Your task to perform on an android device: Open calendar and show me the second week of next month Image 0: 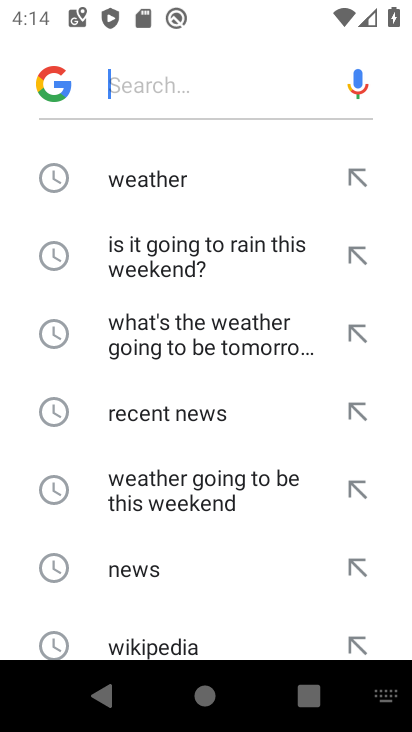
Step 0: drag from (211, 494) to (278, 236)
Your task to perform on an android device: Open calendar and show me the second week of next month Image 1: 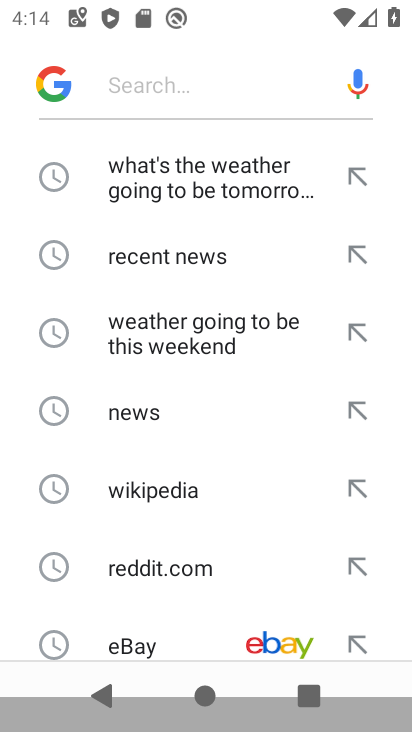
Step 1: drag from (285, 200) to (313, 632)
Your task to perform on an android device: Open calendar and show me the second week of next month Image 2: 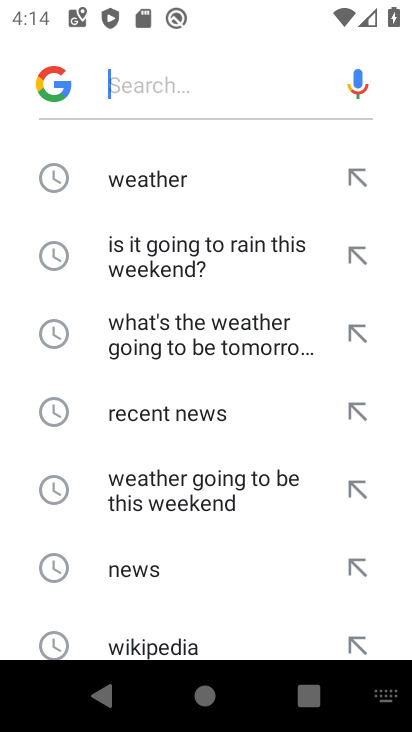
Step 2: press home button
Your task to perform on an android device: Open calendar and show me the second week of next month Image 3: 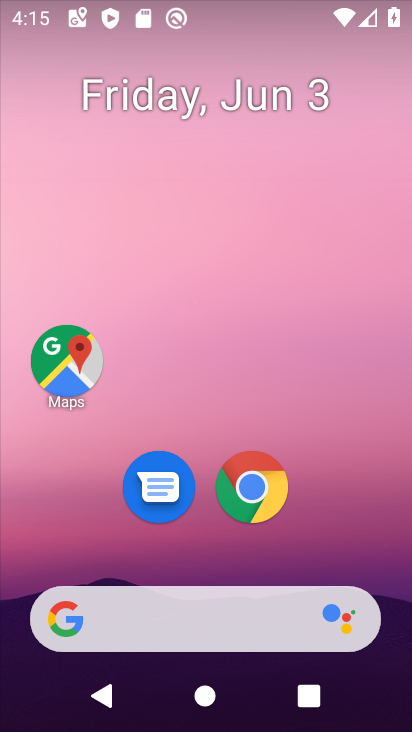
Step 3: drag from (225, 384) to (151, 0)
Your task to perform on an android device: Open calendar and show me the second week of next month Image 4: 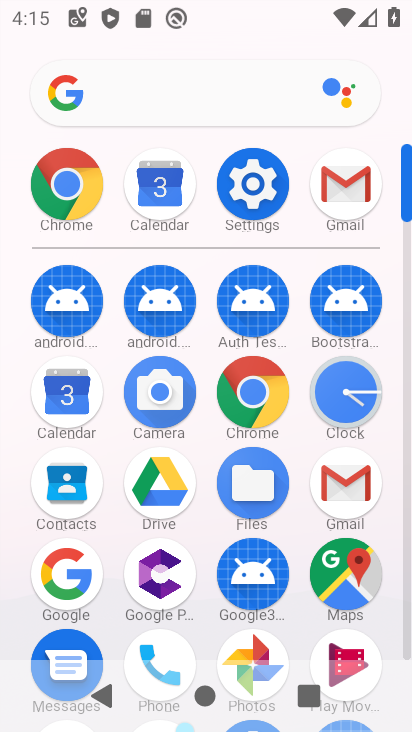
Step 4: click (71, 398)
Your task to perform on an android device: Open calendar and show me the second week of next month Image 5: 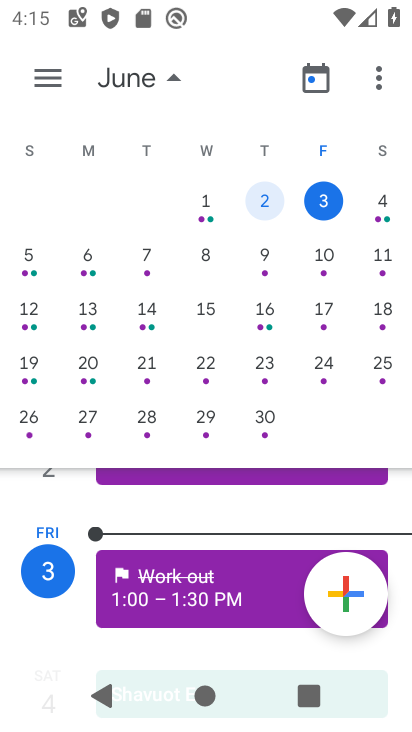
Step 5: drag from (222, 514) to (301, 261)
Your task to perform on an android device: Open calendar and show me the second week of next month Image 6: 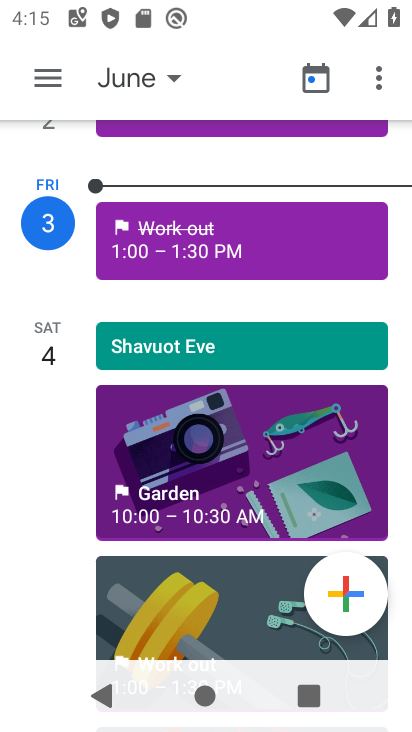
Step 6: drag from (255, 288) to (253, 711)
Your task to perform on an android device: Open calendar and show me the second week of next month Image 7: 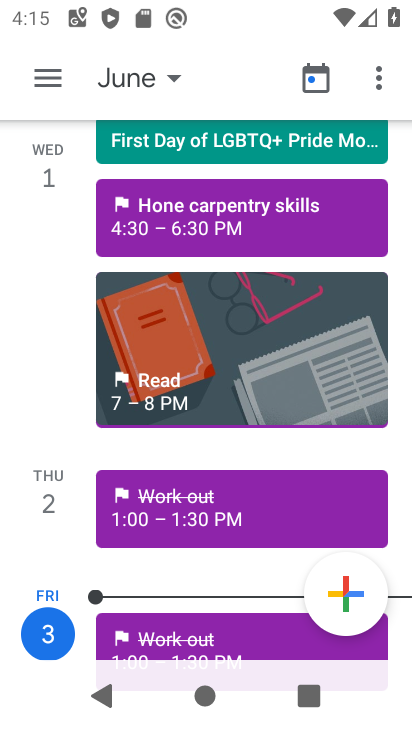
Step 7: drag from (190, 402) to (253, 724)
Your task to perform on an android device: Open calendar and show me the second week of next month Image 8: 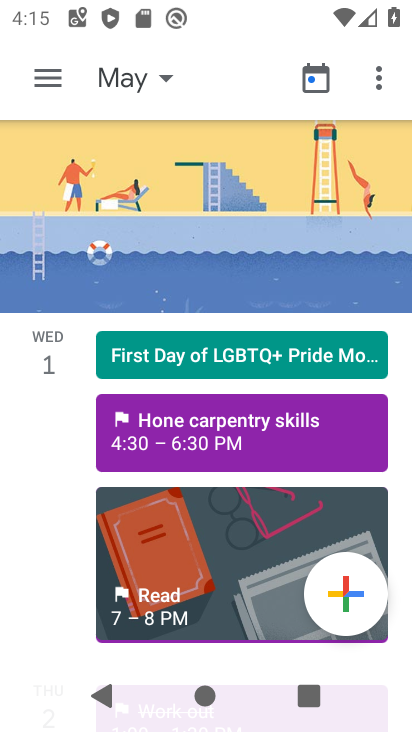
Step 8: drag from (161, 285) to (212, 521)
Your task to perform on an android device: Open calendar and show me the second week of next month Image 9: 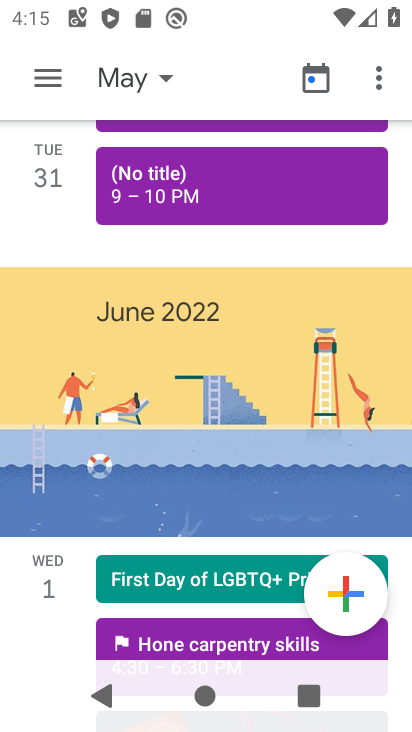
Step 9: click (147, 81)
Your task to perform on an android device: Open calendar and show me the second week of next month Image 10: 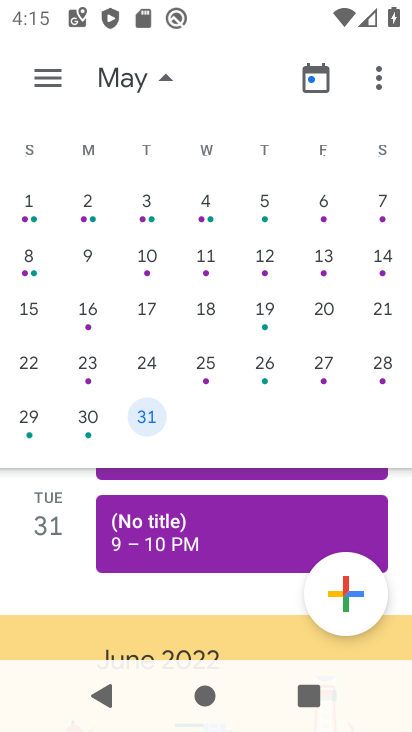
Step 10: drag from (342, 248) to (35, 276)
Your task to perform on an android device: Open calendar and show me the second week of next month Image 11: 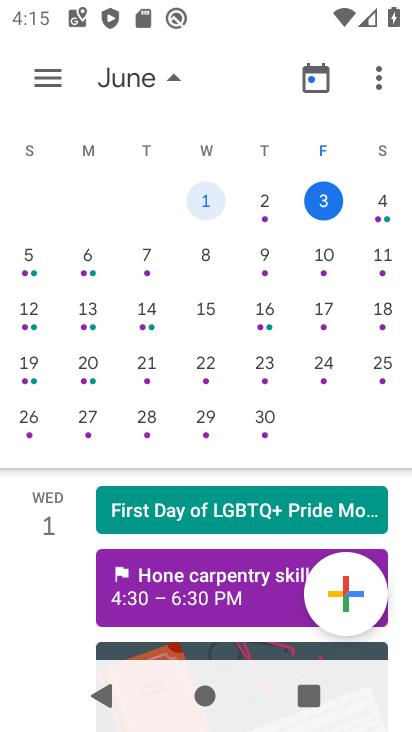
Step 11: click (321, 251)
Your task to perform on an android device: Open calendar and show me the second week of next month Image 12: 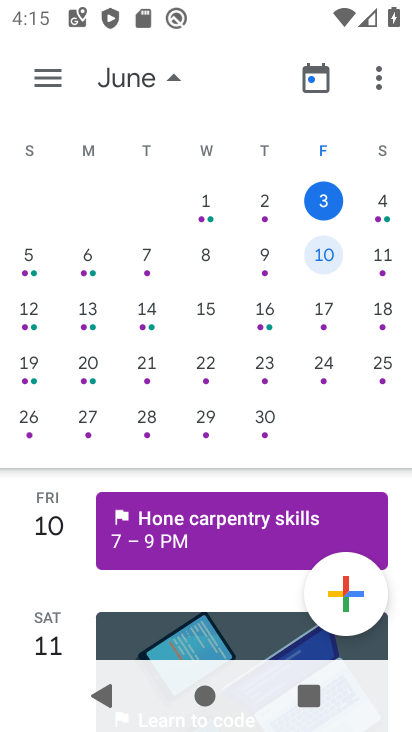
Step 12: drag from (331, 360) to (272, 336)
Your task to perform on an android device: Open calendar and show me the second week of next month Image 13: 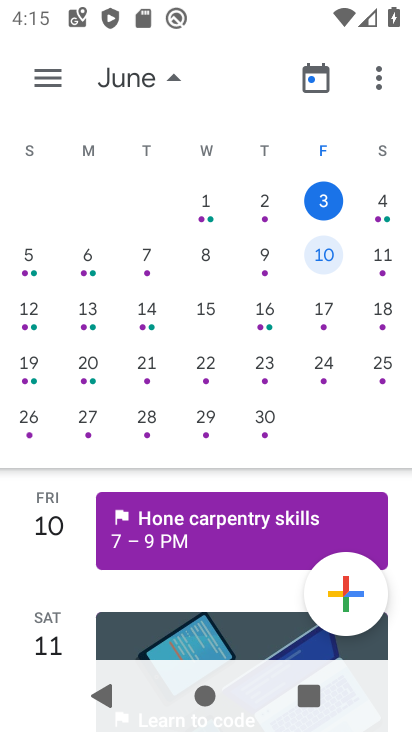
Step 13: click (272, 253)
Your task to perform on an android device: Open calendar and show me the second week of next month Image 14: 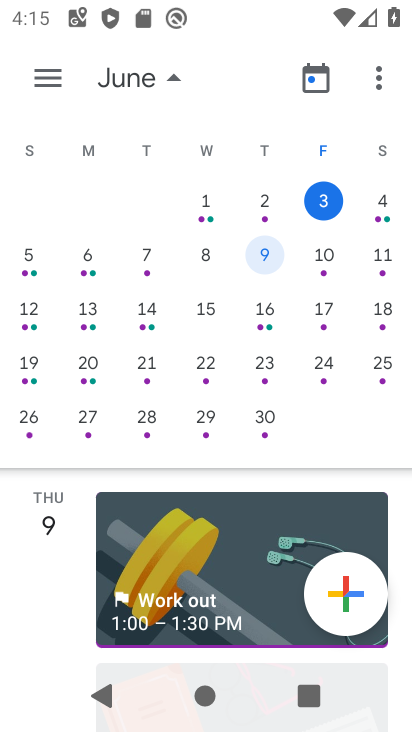
Step 14: click (312, 258)
Your task to perform on an android device: Open calendar and show me the second week of next month Image 15: 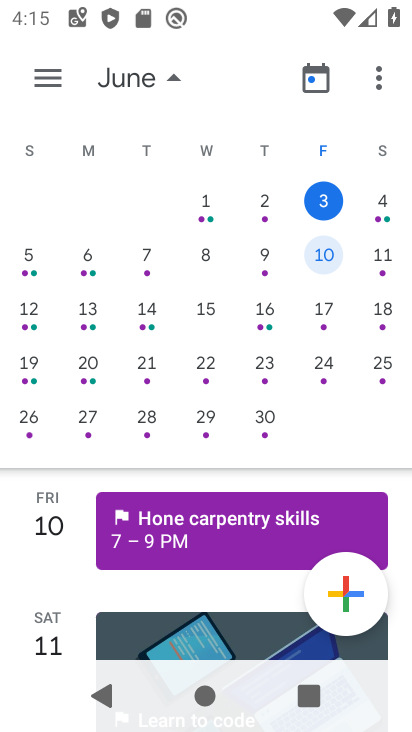
Step 15: drag from (326, 351) to (148, 321)
Your task to perform on an android device: Open calendar and show me the second week of next month Image 16: 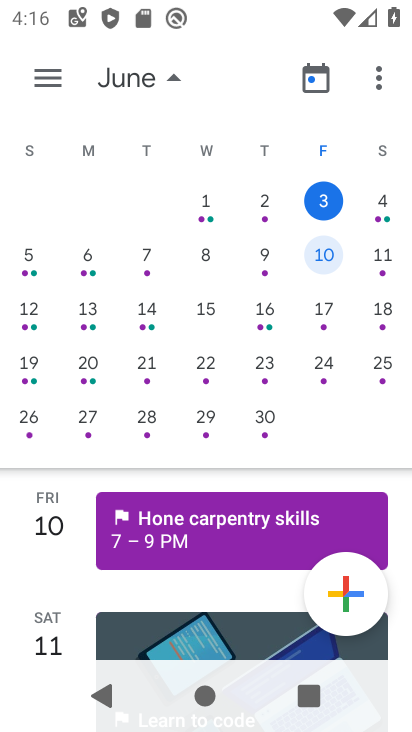
Step 16: click (328, 253)
Your task to perform on an android device: Open calendar and show me the second week of next month Image 17: 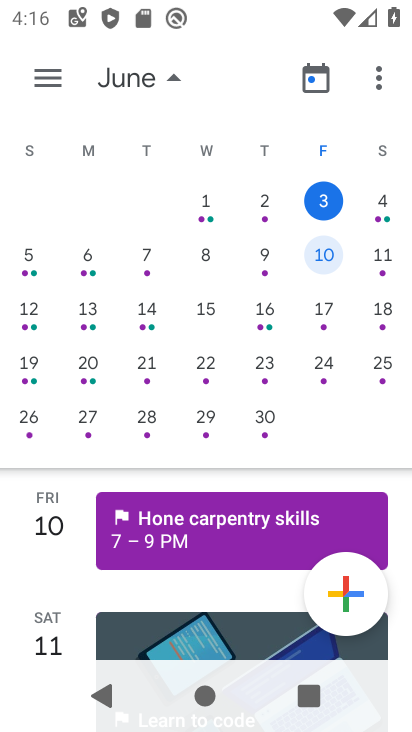
Step 17: task complete